Your task to perform on an android device: check storage Image 0: 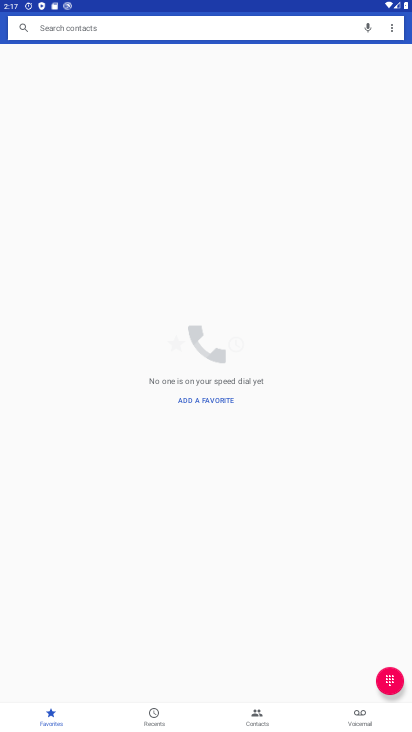
Step 0: press home button
Your task to perform on an android device: check storage Image 1: 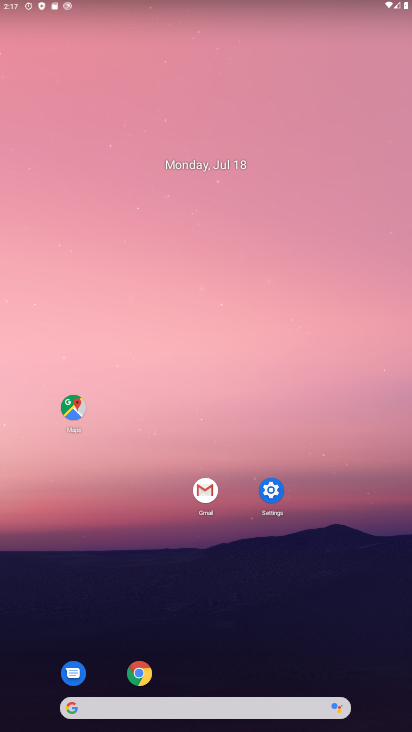
Step 1: click (276, 485)
Your task to perform on an android device: check storage Image 2: 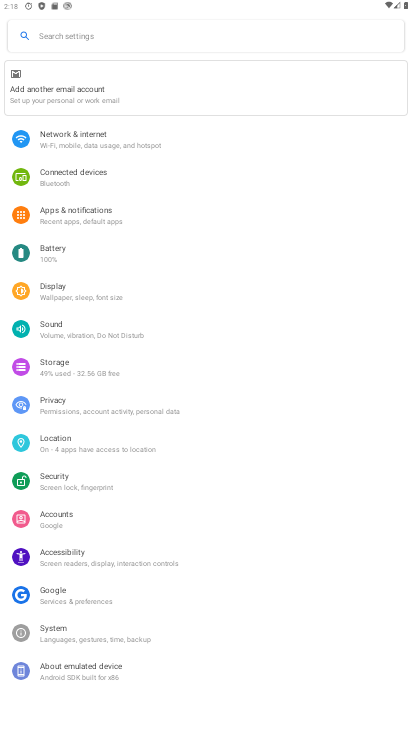
Step 2: click (52, 362)
Your task to perform on an android device: check storage Image 3: 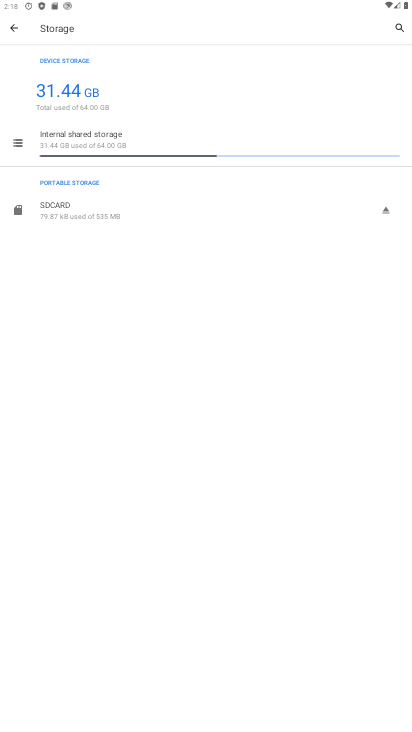
Step 3: task complete